Your task to perform on an android device: Go to eBay Image 0: 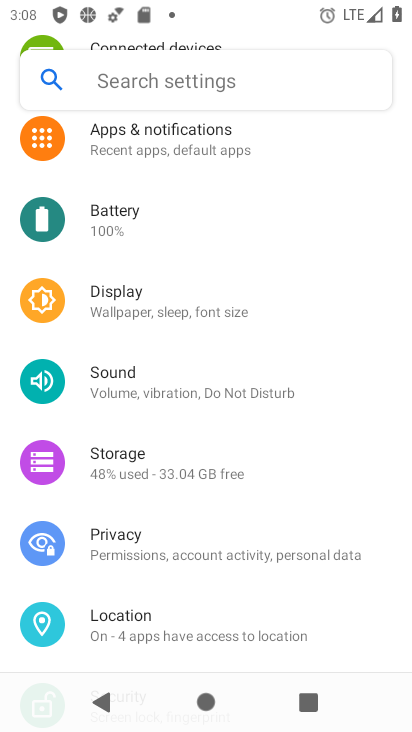
Step 0: press back button
Your task to perform on an android device: Go to eBay Image 1: 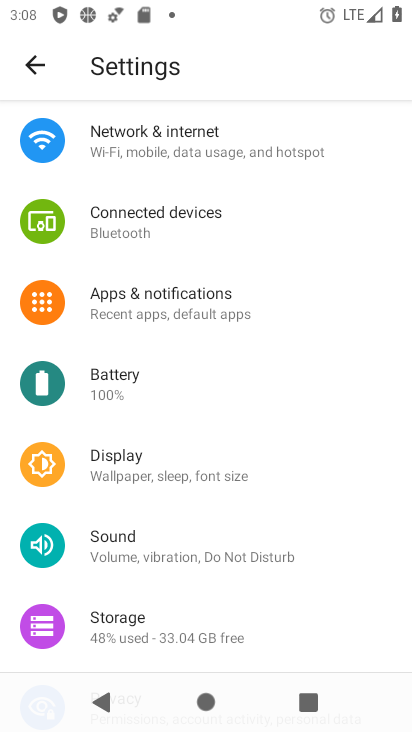
Step 1: press back button
Your task to perform on an android device: Go to eBay Image 2: 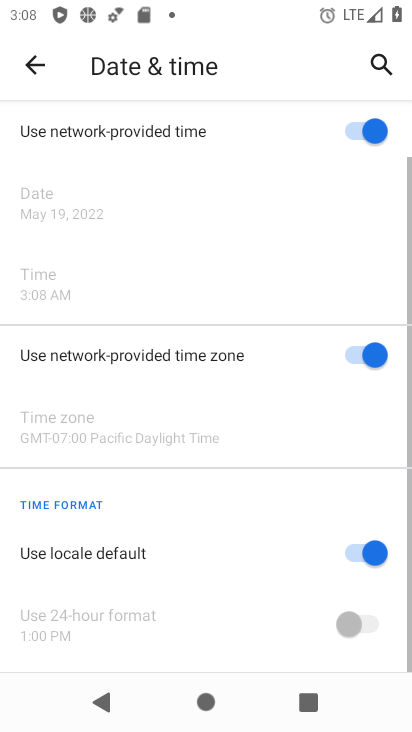
Step 2: press back button
Your task to perform on an android device: Go to eBay Image 3: 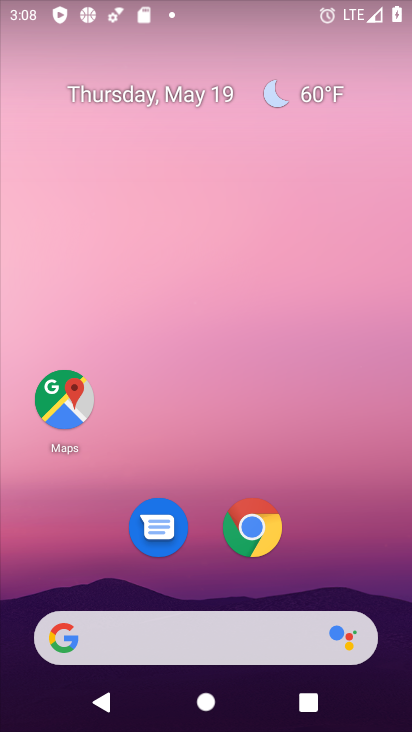
Step 3: click (268, 522)
Your task to perform on an android device: Go to eBay Image 4: 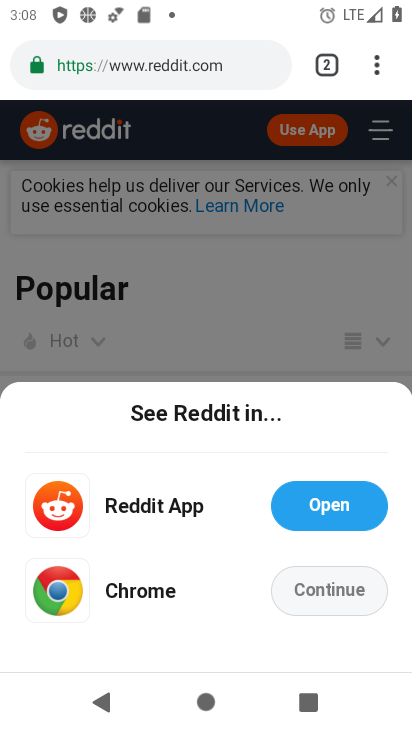
Step 4: click (319, 67)
Your task to perform on an android device: Go to eBay Image 5: 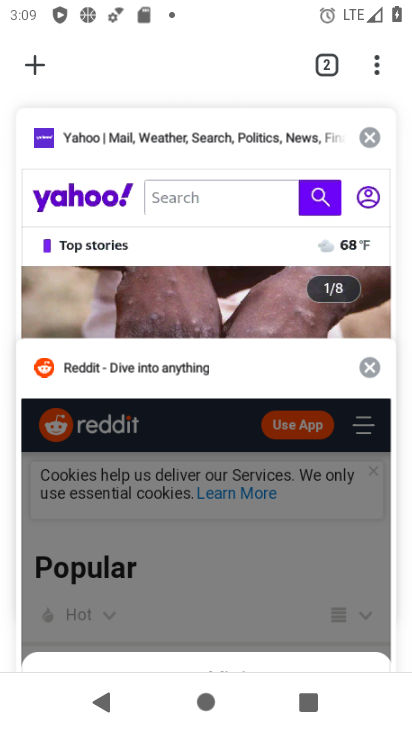
Step 5: click (30, 71)
Your task to perform on an android device: Go to eBay Image 6: 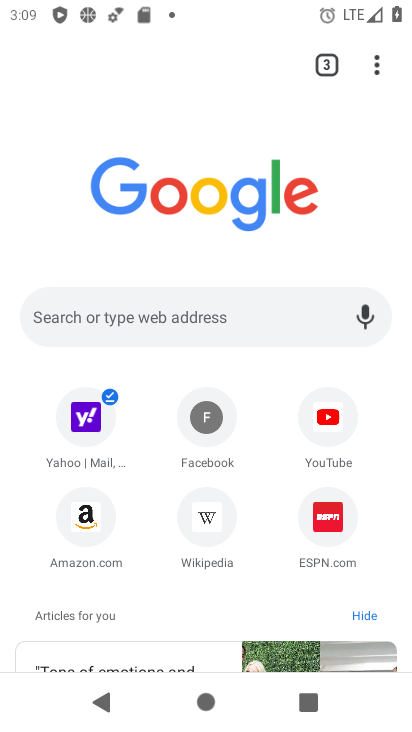
Step 6: click (103, 318)
Your task to perform on an android device: Go to eBay Image 7: 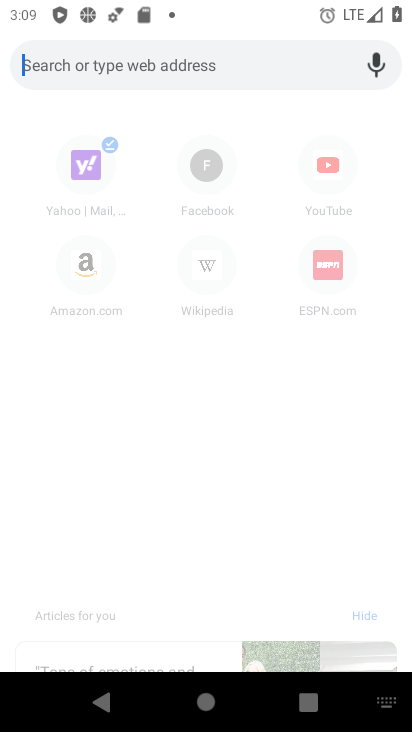
Step 7: type "ebay"
Your task to perform on an android device: Go to eBay Image 8: 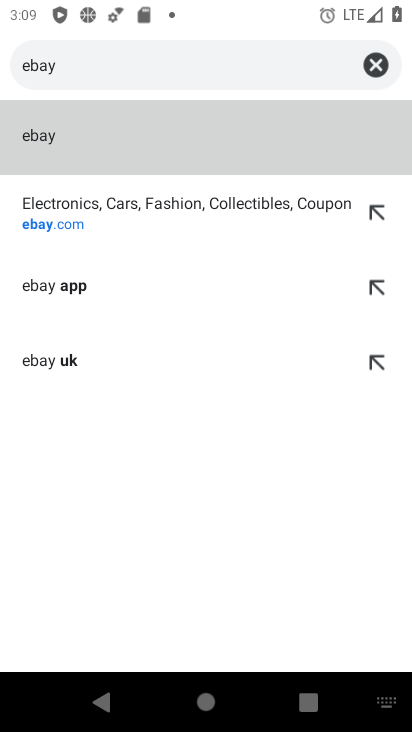
Step 8: click (41, 213)
Your task to perform on an android device: Go to eBay Image 9: 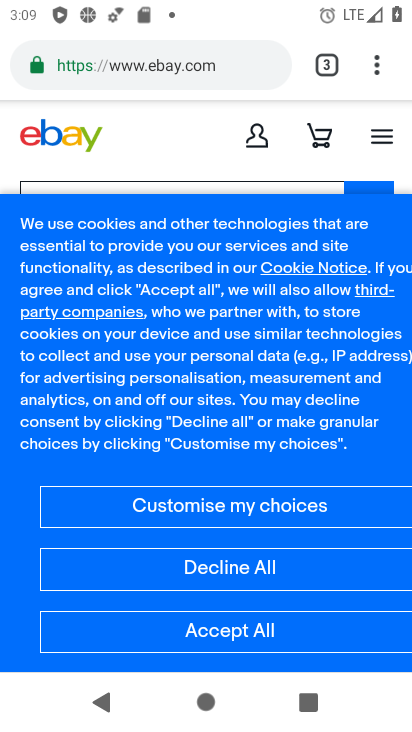
Step 9: task complete